Your task to perform on an android device: Go to display settings Image 0: 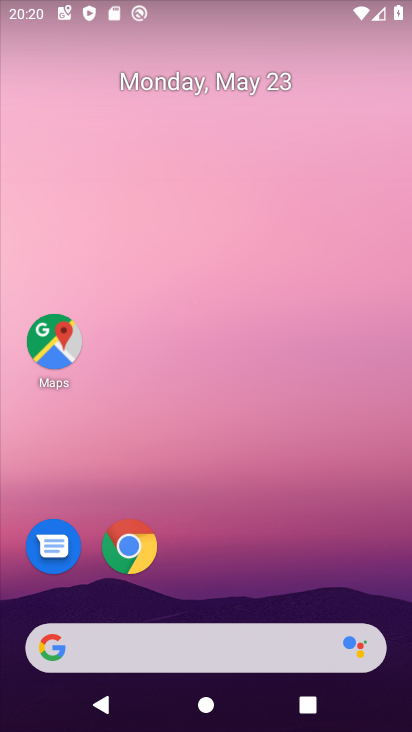
Step 0: drag from (376, 590) to (379, 213)
Your task to perform on an android device: Go to display settings Image 1: 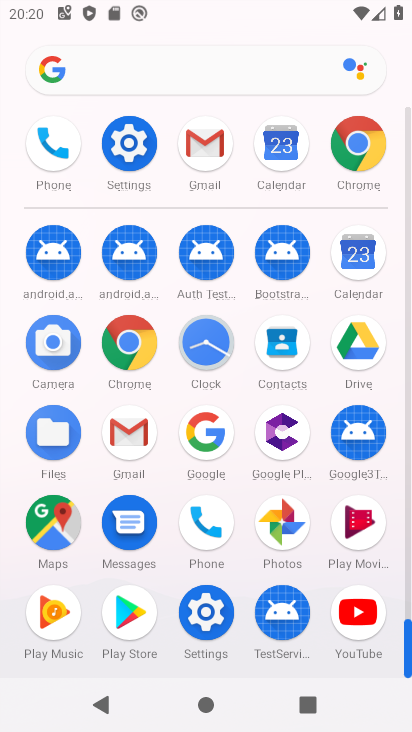
Step 1: click (215, 630)
Your task to perform on an android device: Go to display settings Image 2: 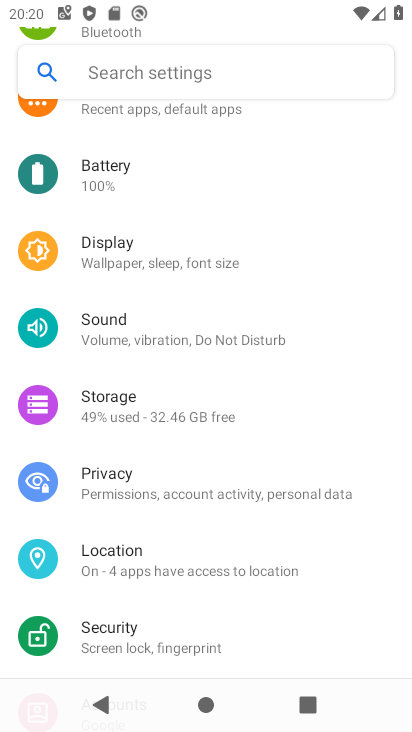
Step 2: drag from (351, 621) to (371, 531)
Your task to perform on an android device: Go to display settings Image 3: 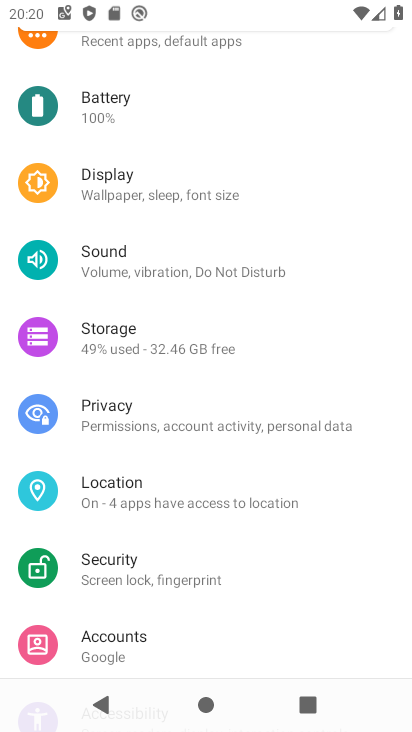
Step 3: drag from (376, 601) to (380, 502)
Your task to perform on an android device: Go to display settings Image 4: 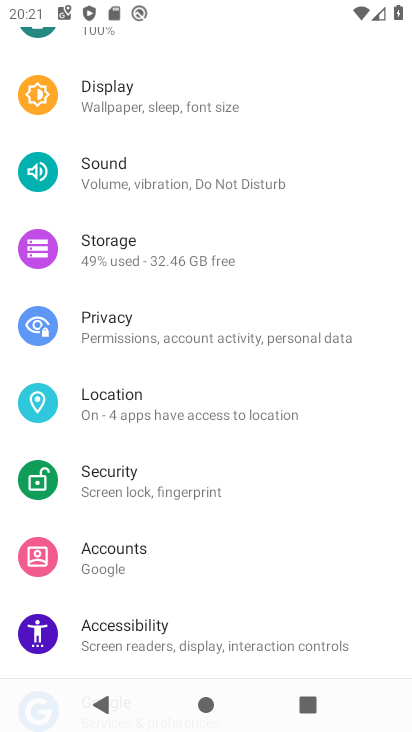
Step 4: drag from (391, 596) to (395, 497)
Your task to perform on an android device: Go to display settings Image 5: 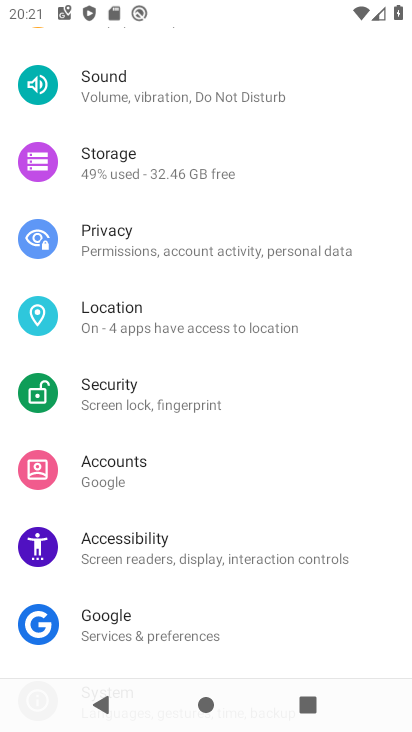
Step 5: drag from (370, 630) to (366, 527)
Your task to perform on an android device: Go to display settings Image 6: 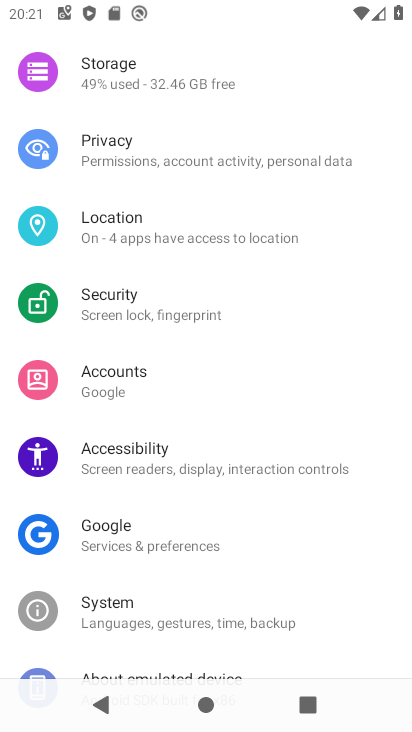
Step 6: drag from (364, 618) to (363, 533)
Your task to perform on an android device: Go to display settings Image 7: 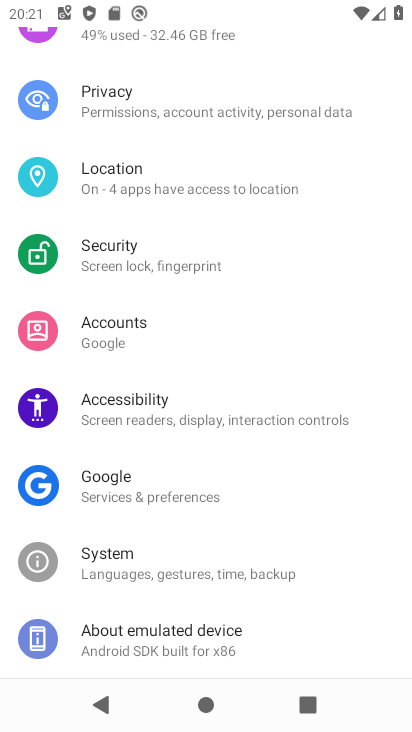
Step 7: drag from (364, 625) to (364, 501)
Your task to perform on an android device: Go to display settings Image 8: 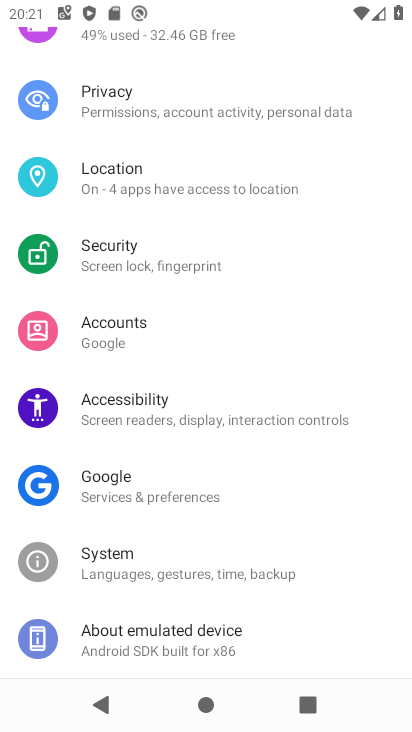
Step 8: drag from (360, 442) to (359, 526)
Your task to perform on an android device: Go to display settings Image 9: 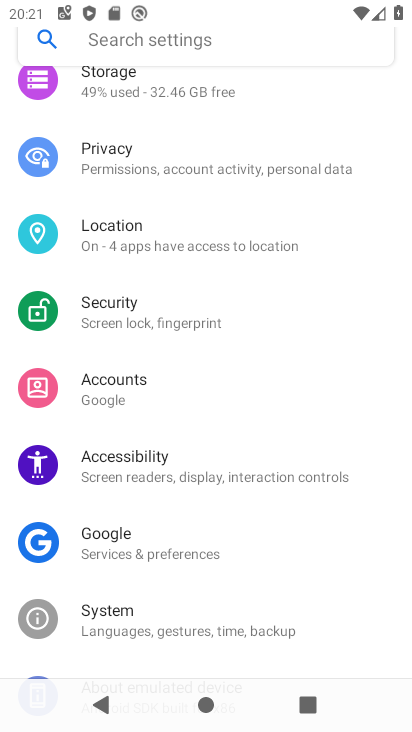
Step 9: drag from (359, 412) to (358, 513)
Your task to perform on an android device: Go to display settings Image 10: 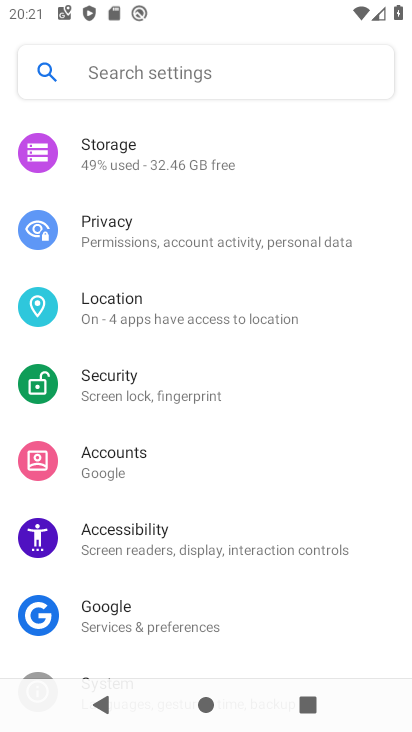
Step 10: drag from (357, 391) to (354, 499)
Your task to perform on an android device: Go to display settings Image 11: 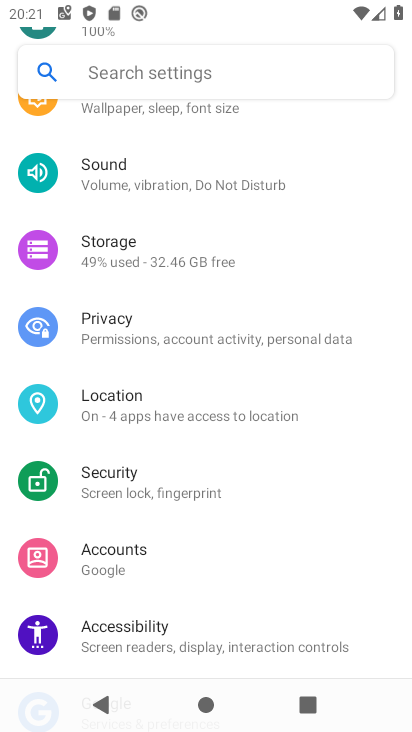
Step 11: drag from (368, 395) to (364, 477)
Your task to perform on an android device: Go to display settings Image 12: 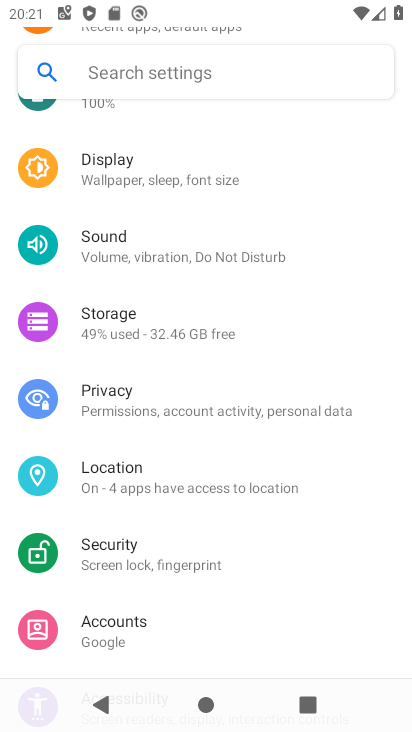
Step 12: drag from (378, 369) to (371, 463)
Your task to perform on an android device: Go to display settings Image 13: 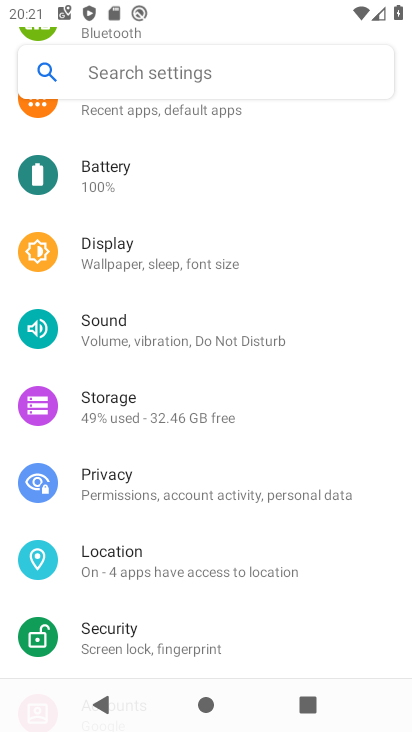
Step 13: drag from (371, 337) to (366, 425)
Your task to perform on an android device: Go to display settings Image 14: 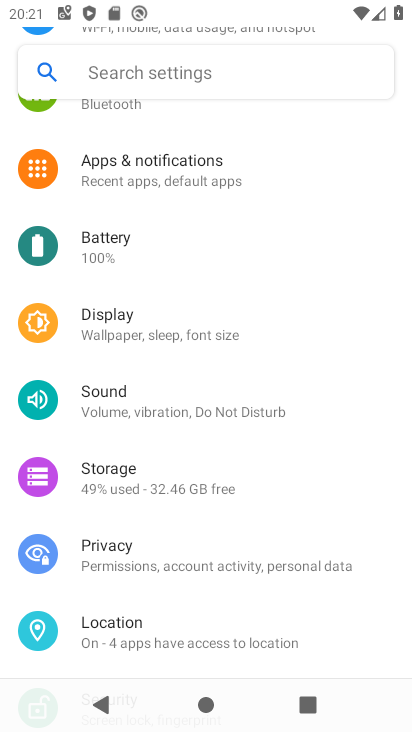
Step 14: drag from (371, 334) to (378, 447)
Your task to perform on an android device: Go to display settings Image 15: 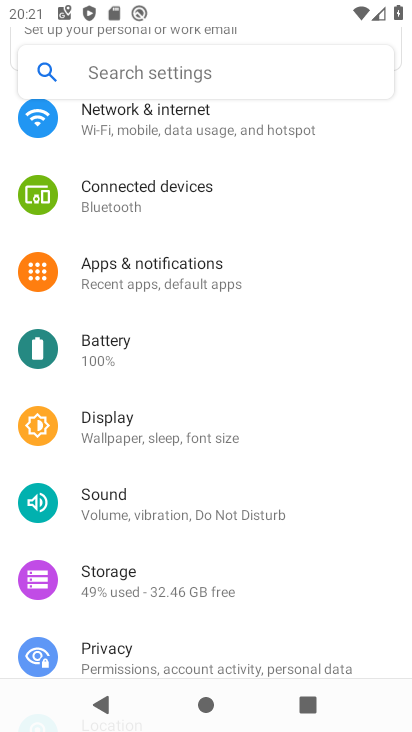
Step 15: drag from (373, 336) to (386, 566)
Your task to perform on an android device: Go to display settings Image 16: 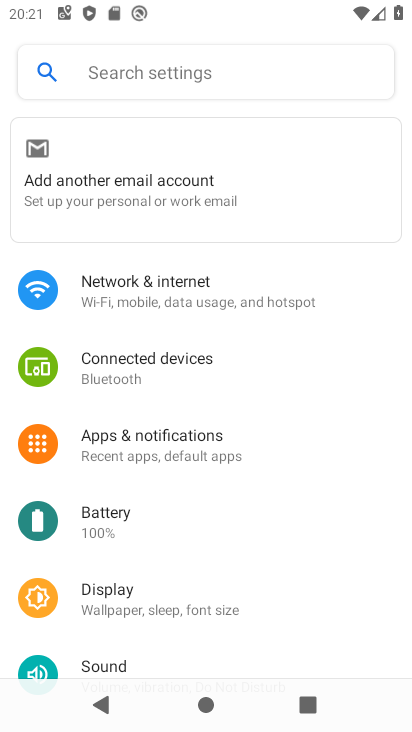
Step 16: click (245, 614)
Your task to perform on an android device: Go to display settings Image 17: 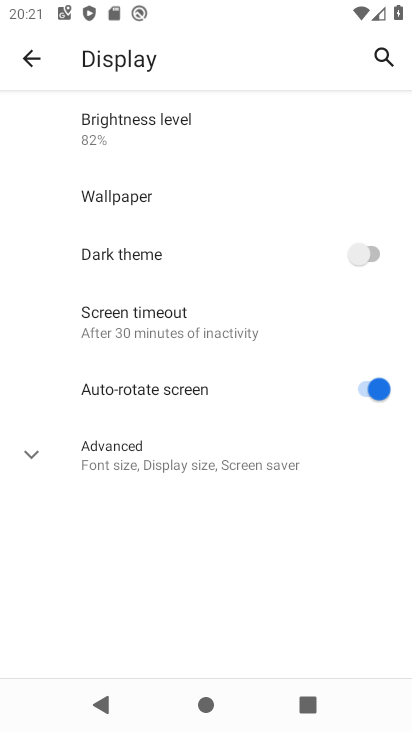
Step 17: task complete